Your task to perform on an android device: turn off data saver in the chrome app Image 0: 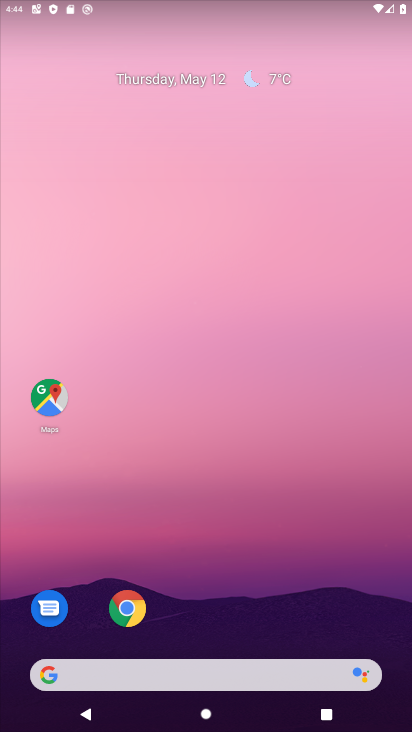
Step 0: click (130, 617)
Your task to perform on an android device: turn off data saver in the chrome app Image 1: 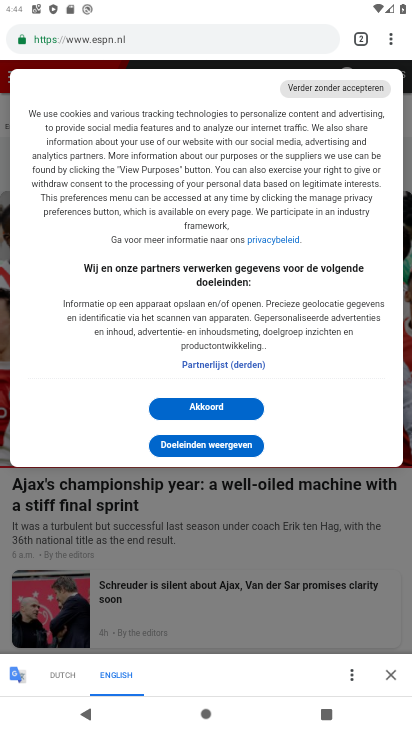
Step 1: click (383, 43)
Your task to perform on an android device: turn off data saver in the chrome app Image 2: 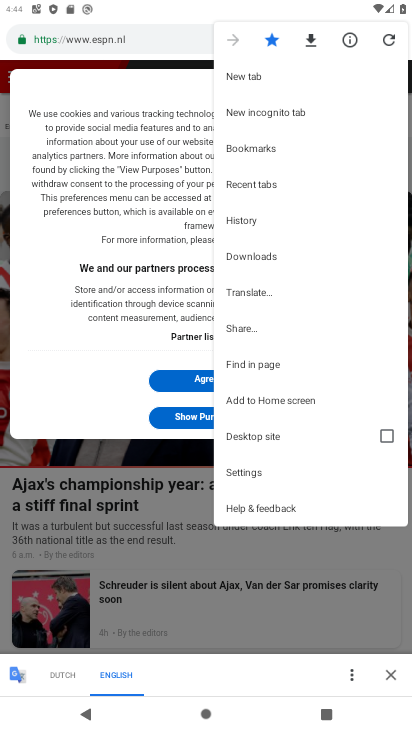
Step 2: click (239, 478)
Your task to perform on an android device: turn off data saver in the chrome app Image 3: 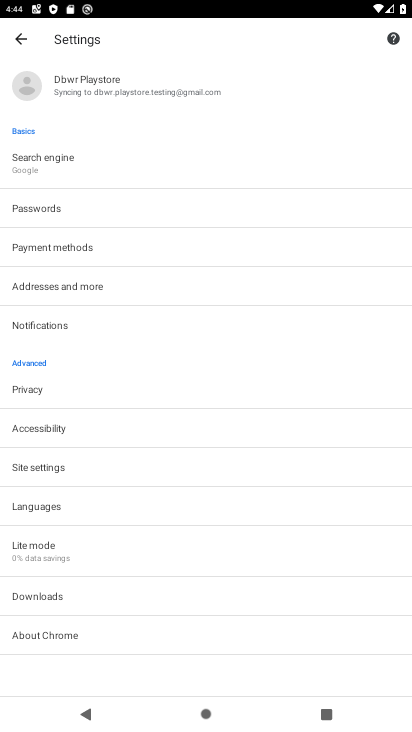
Step 3: click (51, 475)
Your task to perform on an android device: turn off data saver in the chrome app Image 4: 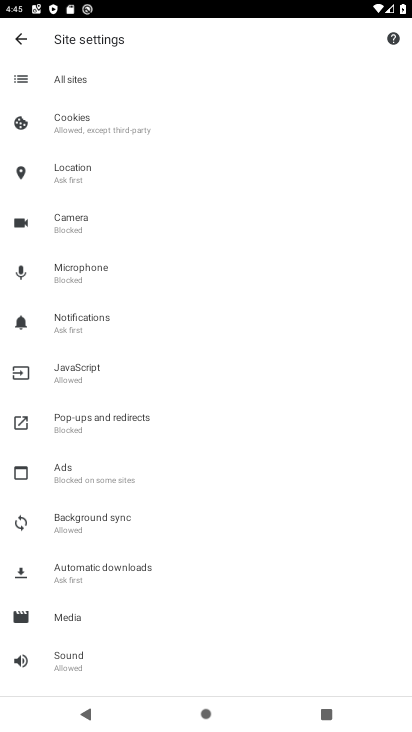
Step 4: drag from (134, 572) to (318, 120)
Your task to perform on an android device: turn off data saver in the chrome app Image 5: 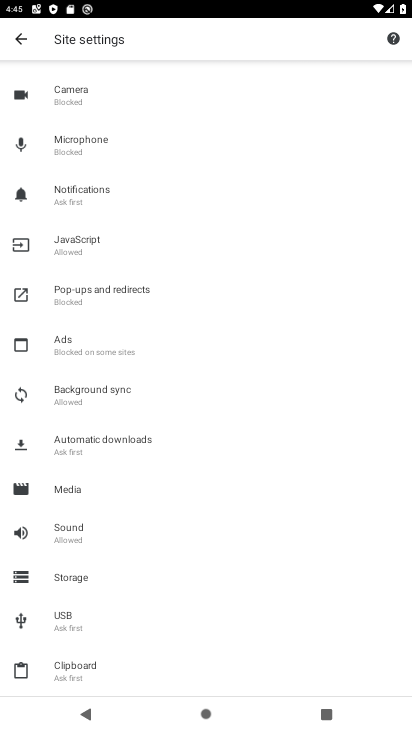
Step 5: press back button
Your task to perform on an android device: turn off data saver in the chrome app Image 6: 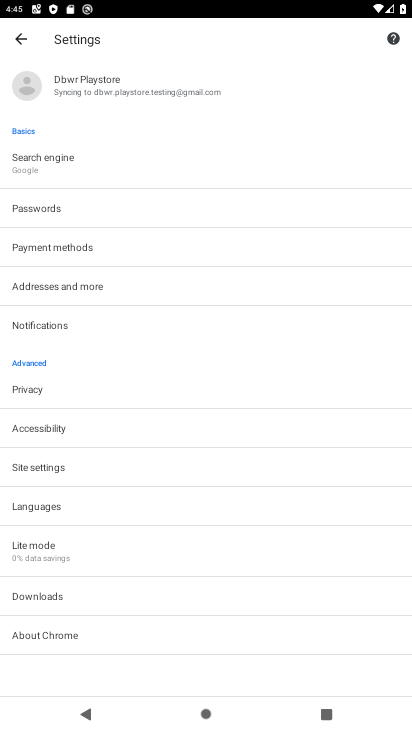
Step 6: click (81, 553)
Your task to perform on an android device: turn off data saver in the chrome app Image 7: 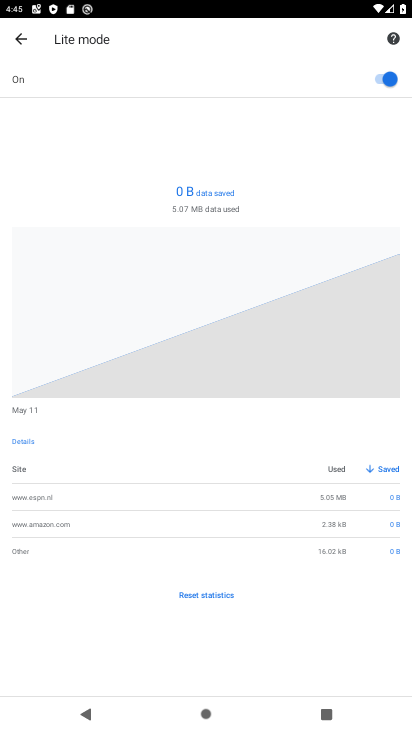
Step 7: click (390, 70)
Your task to perform on an android device: turn off data saver in the chrome app Image 8: 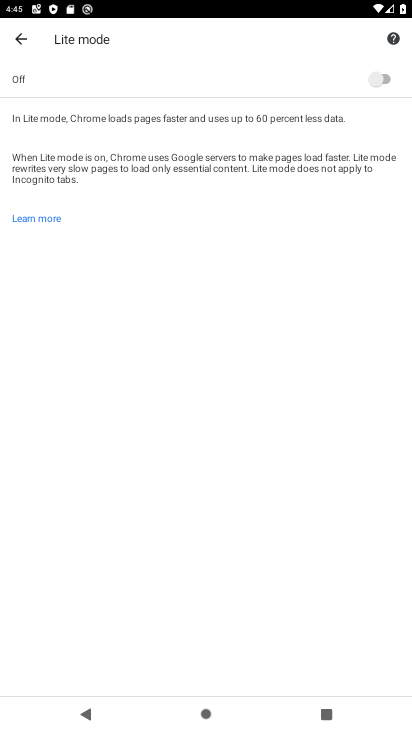
Step 8: task complete